Your task to perform on an android device: turn on notifications settings in the gmail app Image 0: 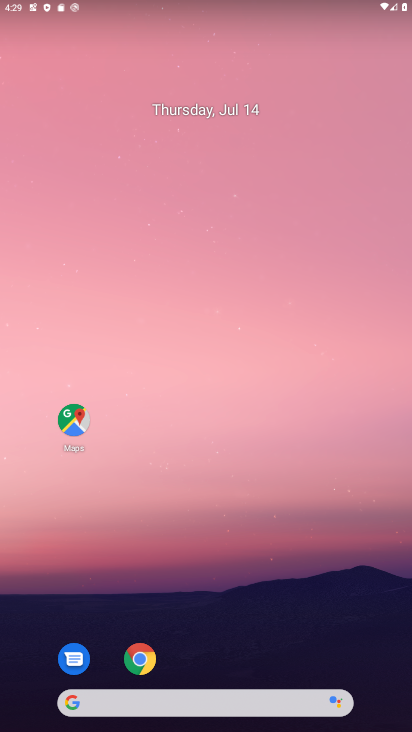
Step 0: drag from (249, 582) to (263, 157)
Your task to perform on an android device: turn on notifications settings in the gmail app Image 1: 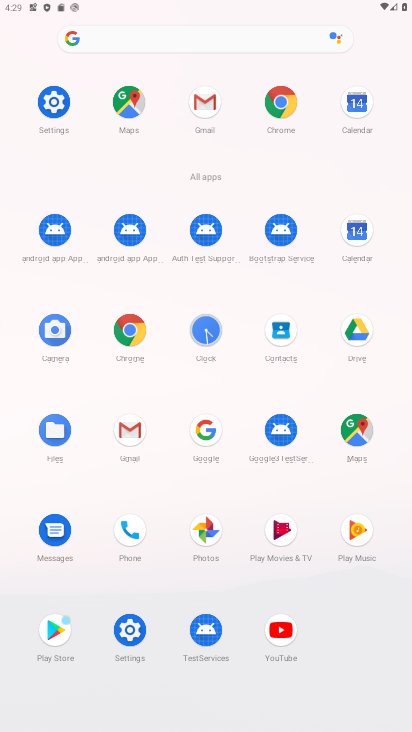
Step 1: click (131, 429)
Your task to perform on an android device: turn on notifications settings in the gmail app Image 2: 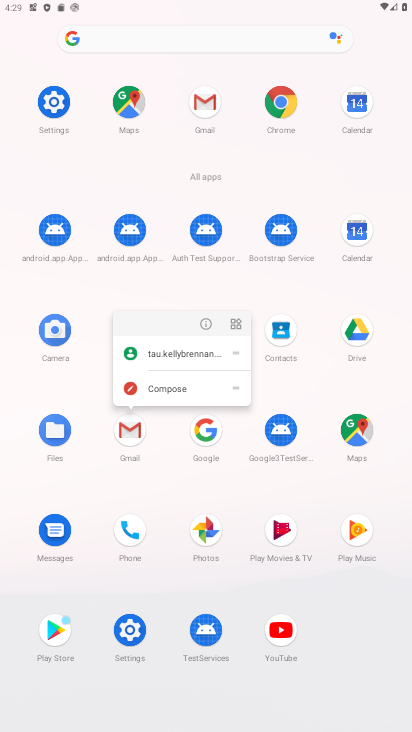
Step 2: click (134, 429)
Your task to perform on an android device: turn on notifications settings in the gmail app Image 3: 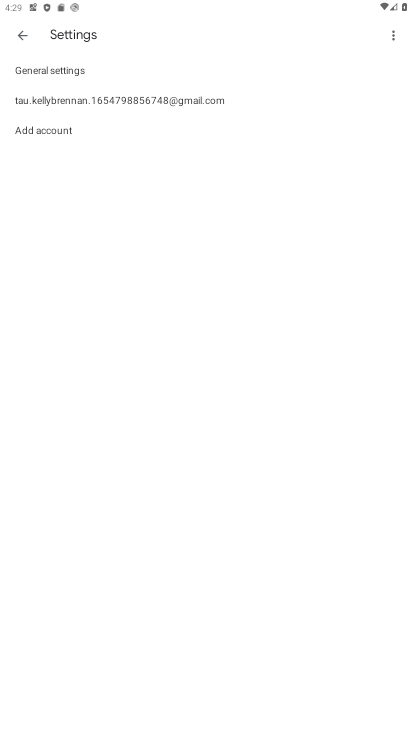
Step 3: click (66, 62)
Your task to perform on an android device: turn on notifications settings in the gmail app Image 4: 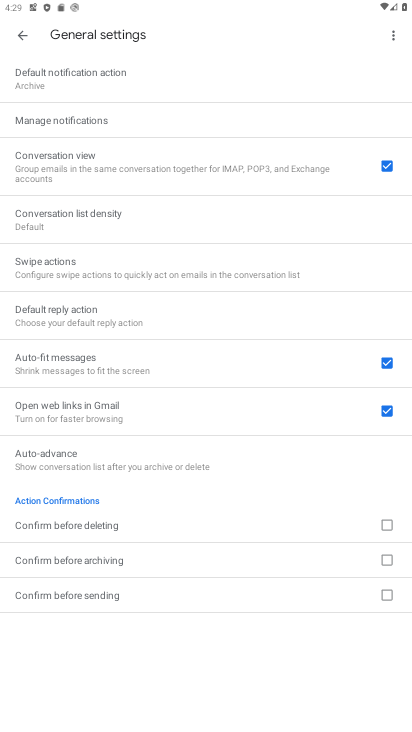
Step 4: click (25, 34)
Your task to perform on an android device: turn on notifications settings in the gmail app Image 5: 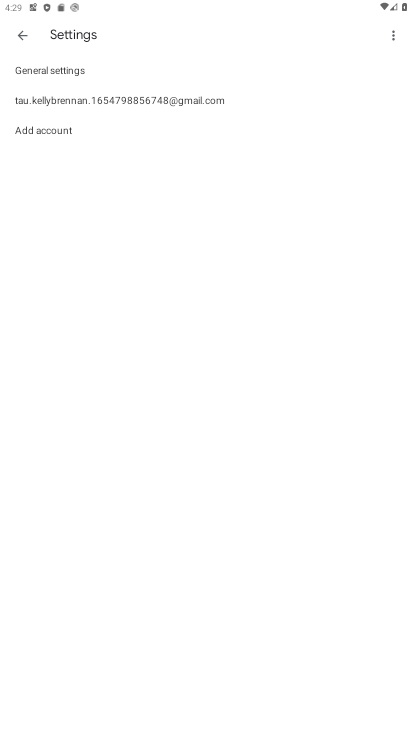
Step 5: click (60, 74)
Your task to perform on an android device: turn on notifications settings in the gmail app Image 6: 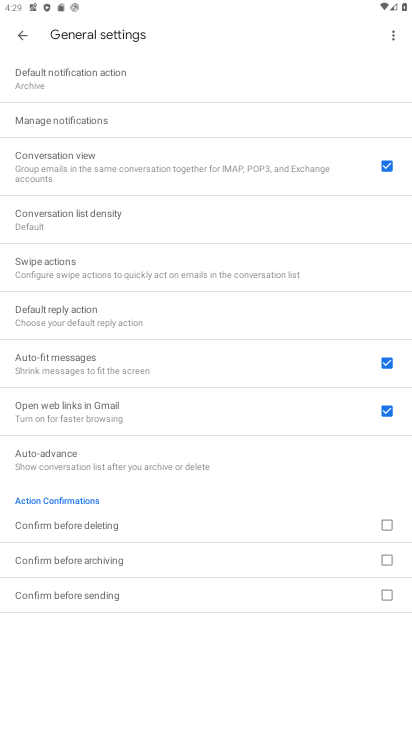
Step 6: click (84, 115)
Your task to perform on an android device: turn on notifications settings in the gmail app Image 7: 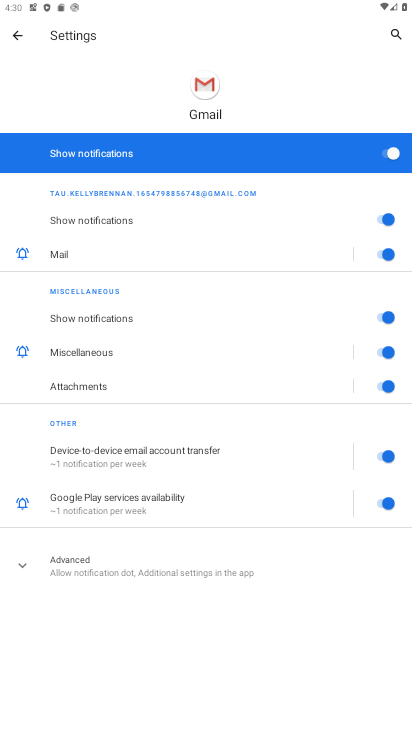
Step 7: task complete